Your task to perform on an android device: Open Yahoo.com Image 0: 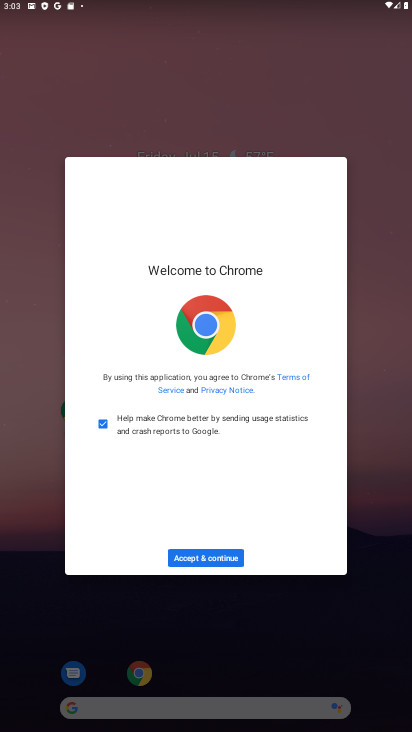
Step 0: press home button
Your task to perform on an android device: Open Yahoo.com Image 1: 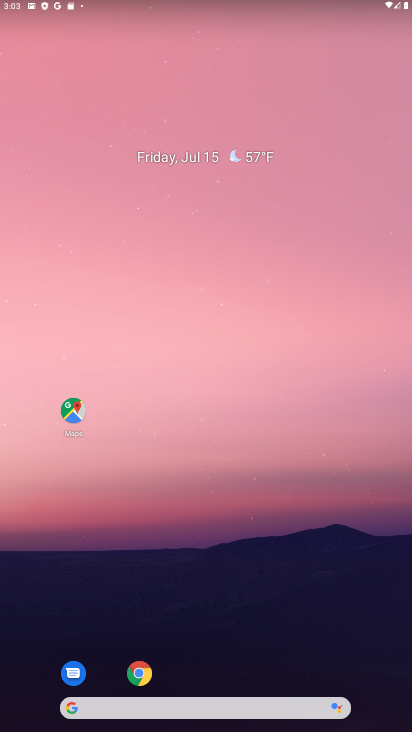
Step 1: drag from (242, 37) to (273, 14)
Your task to perform on an android device: Open Yahoo.com Image 2: 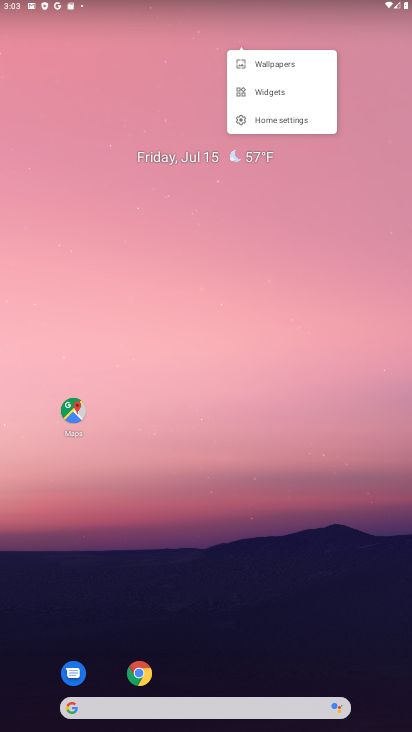
Step 2: click (229, 644)
Your task to perform on an android device: Open Yahoo.com Image 3: 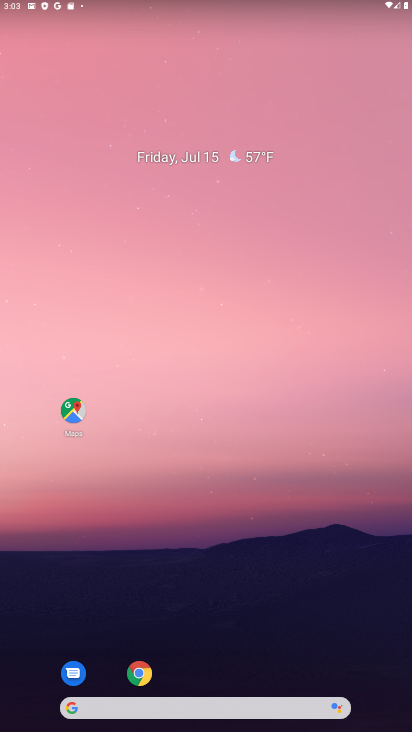
Step 3: click (143, 677)
Your task to perform on an android device: Open Yahoo.com Image 4: 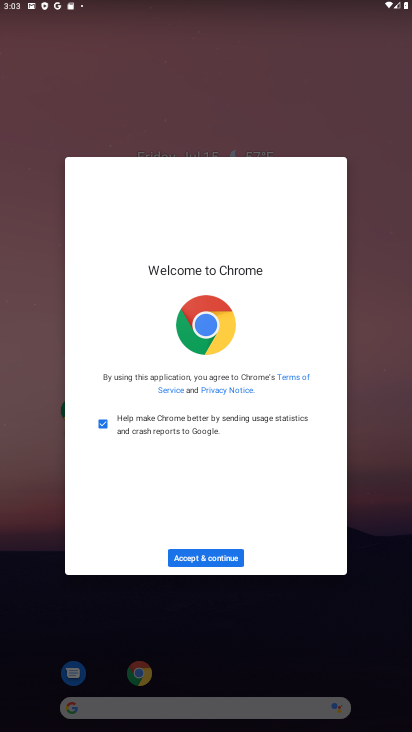
Step 4: click (200, 555)
Your task to perform on an android device: Open Yahoo.com Image 5: 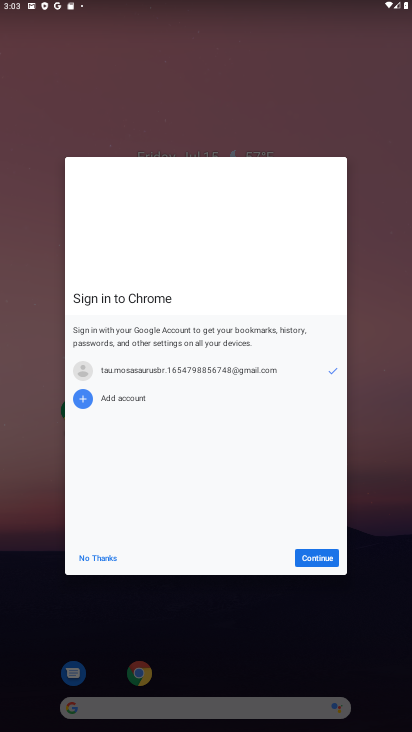
Step 5: click (319, 551)
Your task to perform on an android device: Open Yahoo.com Image 6: 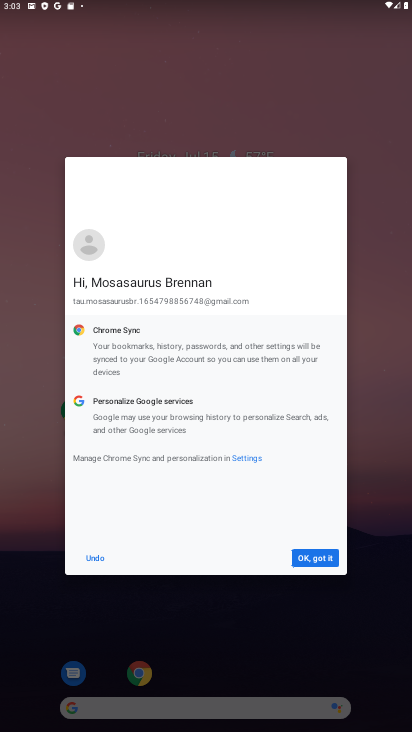
Step 6: click (311, 556)
Your task to perform on an android device: Open Yahoo.com Image 7: 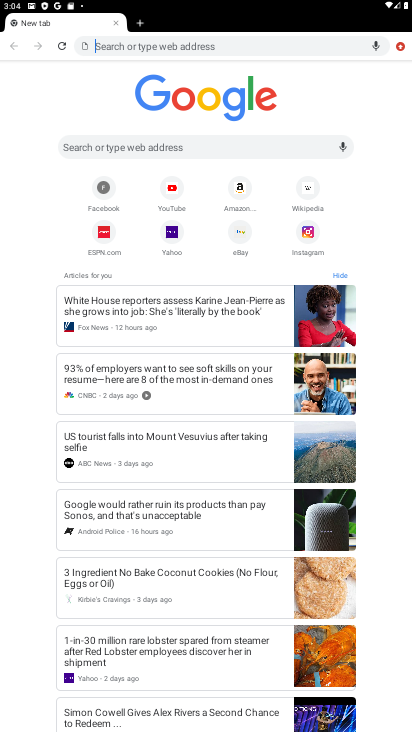
Step 7: click (175, 246)
Your task to perform on an android device: Open Yahoo.com Image 8: 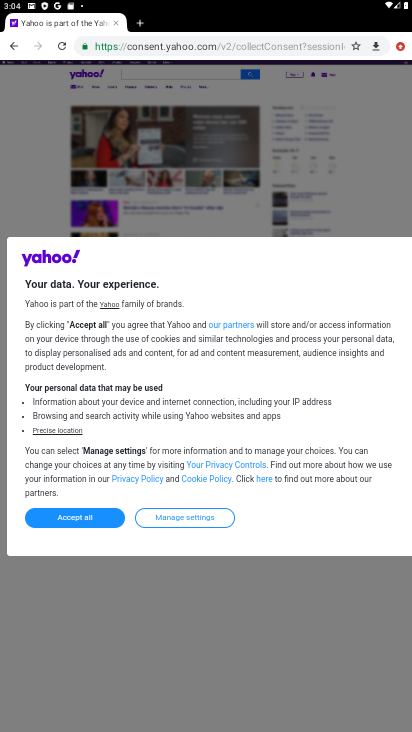
Step 8: task complete